Your task to perform on an android device: What's the weather today? Image 0: 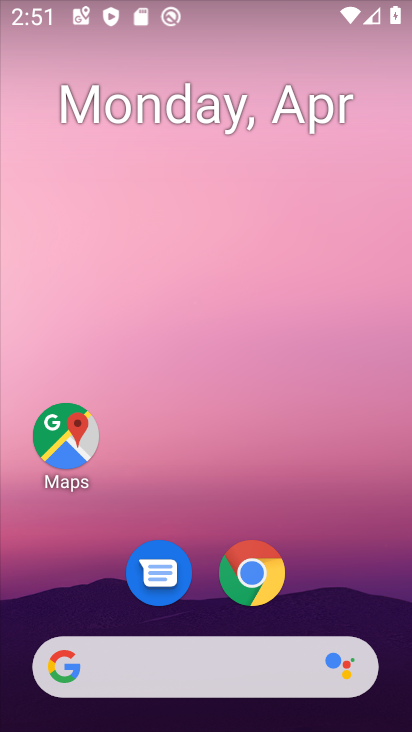
Step 0: click (231, 667)
Your task to perform on an android device: What's the weather today? Image 1: 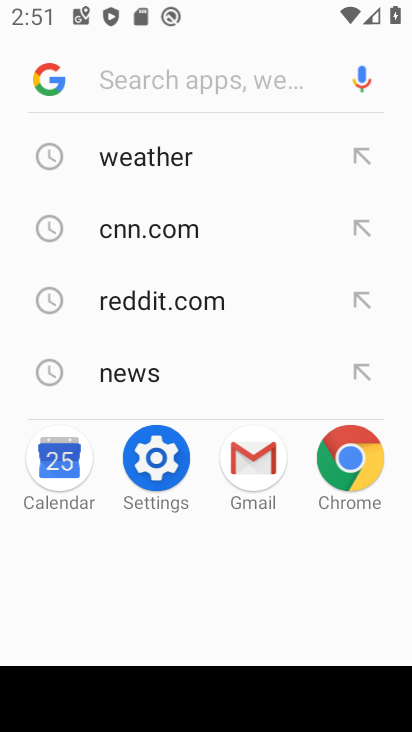
Step 1: click (171, 164)
Your task to perform on an android device: What's the weather today? Image 2: 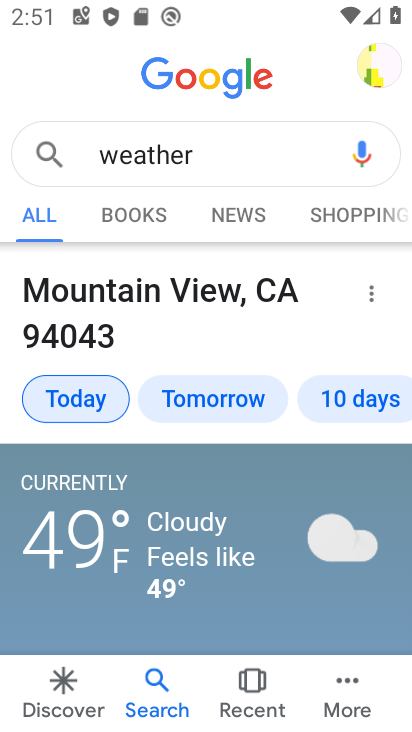
Step 2: task complete